Your task to perform on an android device: Go to wifi settings Image 0: 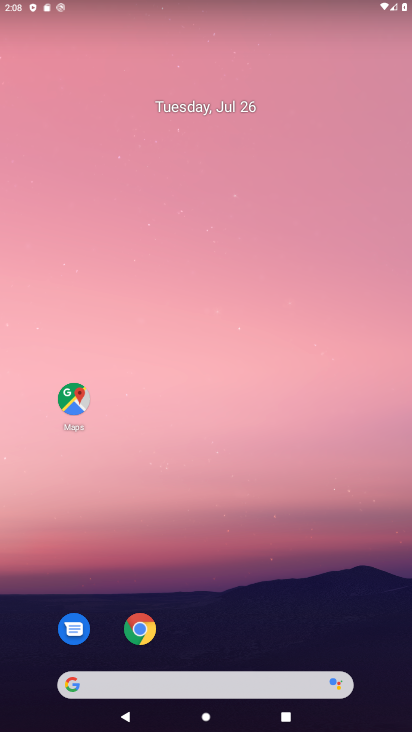
Step 0: press home button
Your task to perform on an android device: Go to wifi settings Image 1: 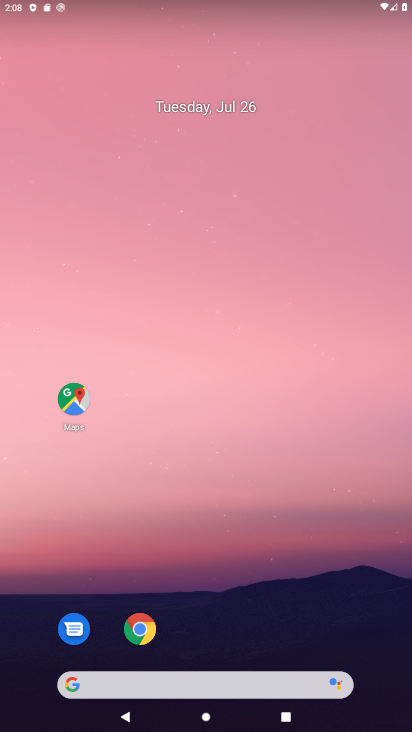
Step 1: drag from (283, 658) to (234, 289)
Your task to perform on an android device: Go to wifi settings Image 2: 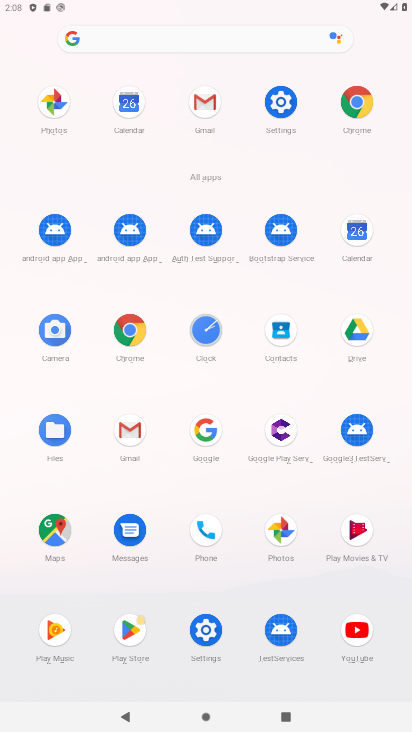
Step 2: click (283, 133)
Your task to perform on an android device: Go to wifi settings Image 3: 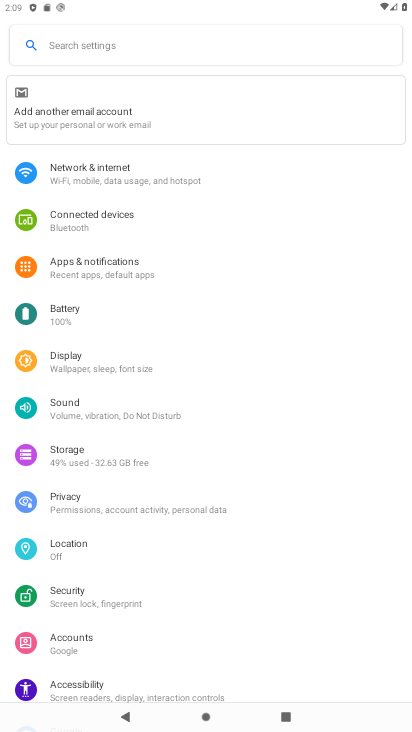
Step 3: click (123, 168)
Your task to perform on an android device: Go to wifi settings Image 4: 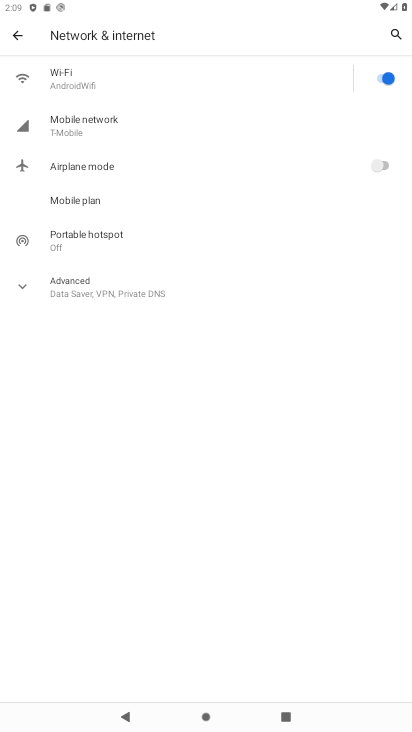
Step 4: click (186, 72)
Your task to perform on an android device: Go to wifi settings Image 5: 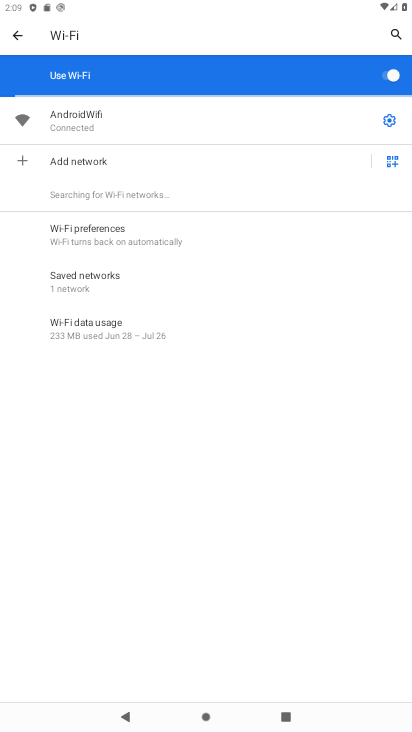
Step 5: task complete